Your task to perform on an android device: Open Chrome and go to settings Image 0: 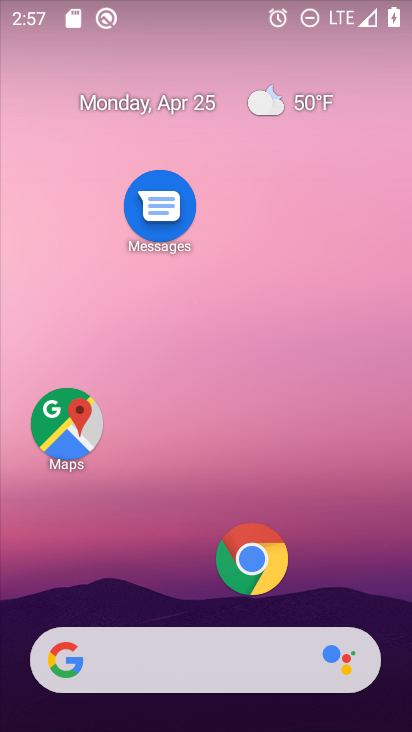
Step 0: click (251, 553)
Your task to perform on an android device: Open Chrome and go to settings Image 1: 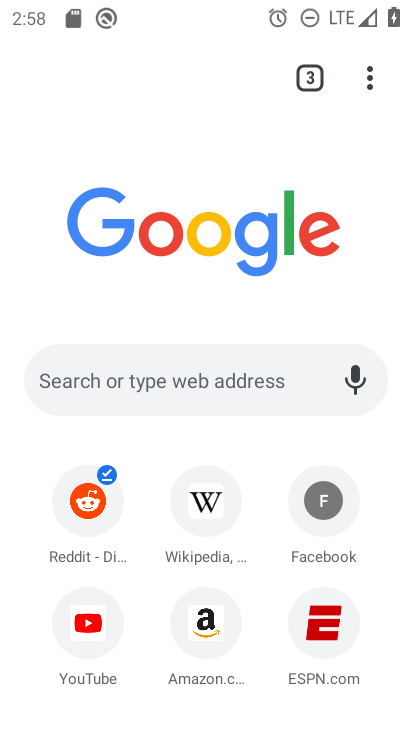
Step 1: click (377, 87)
Your task to perform on an android device: Open Chrome and go to settings Image 2: 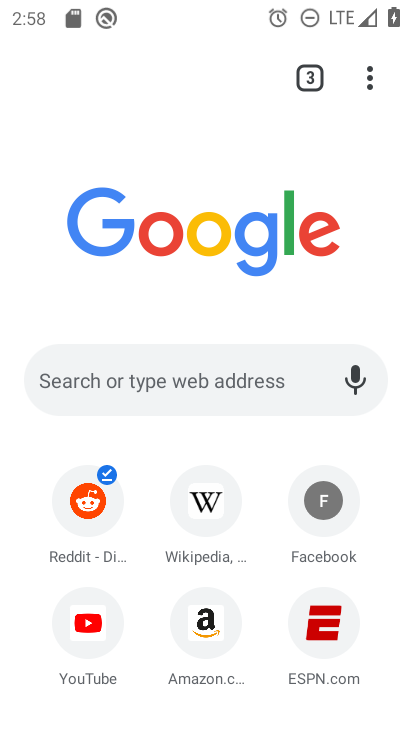
Step 2: click (367, 87)
Your task to perform on an android device: Open Chrome and go to settings Image 3: 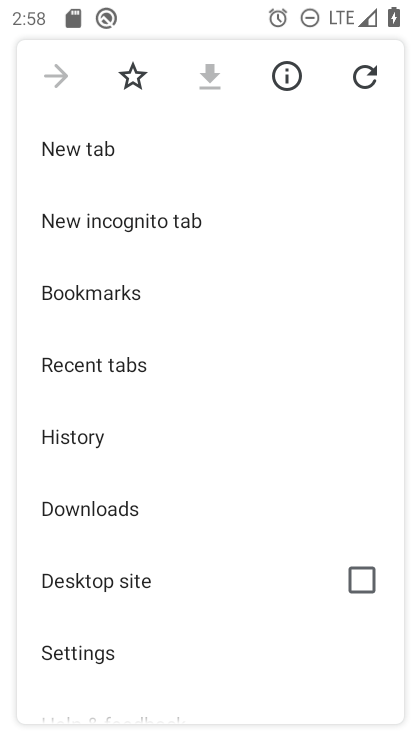
Step 3: click (96, 653)
Your task to perform on an android device: Open Chrome and go to settings Image 4: 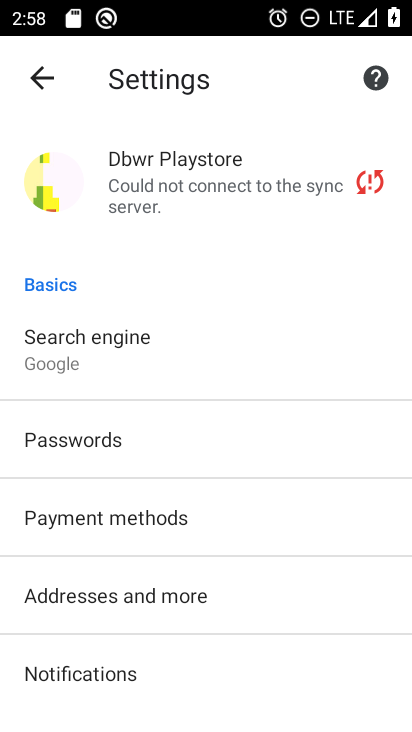
Step 4: task complete